Your task to perform on an android device: turn on sleep mode Image 0: 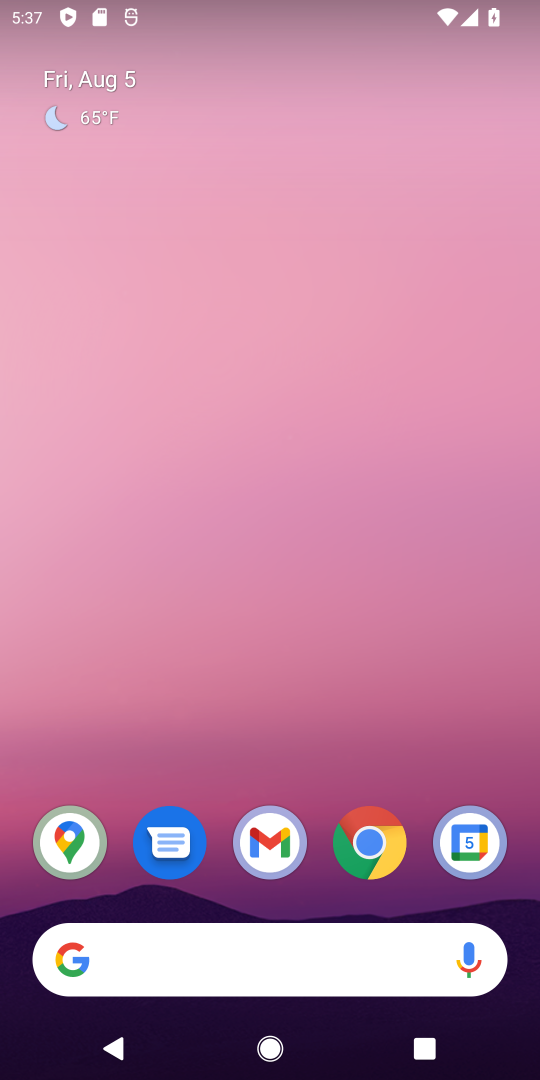
Step 0: drag from (47, 1077) to (263, 237)
Your task to perform on an android device: turn on sleep mode Image 1: 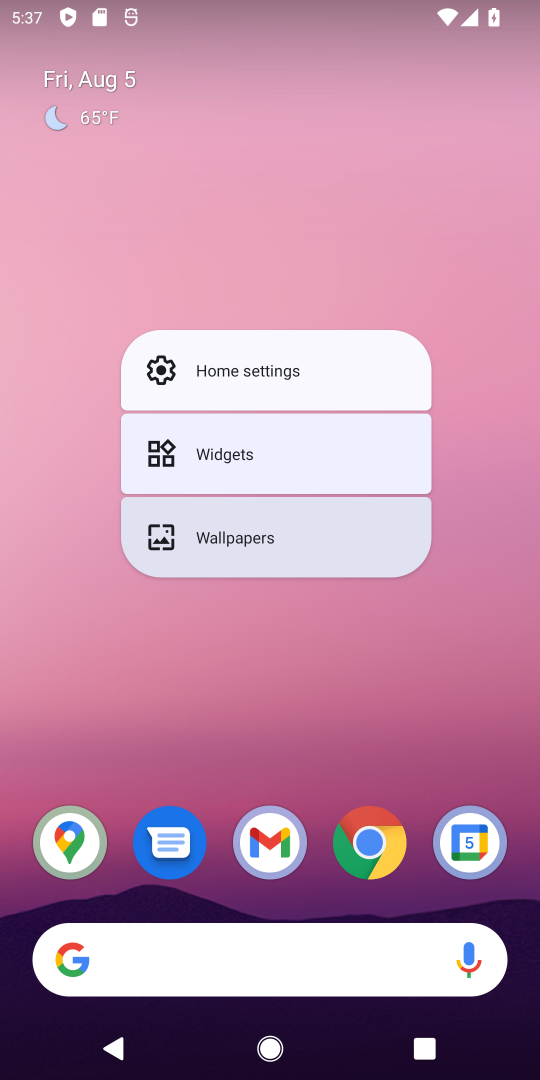
Step 1: drag from (216, 641) to (340, 216)
Your task to perform on an android device: turn on sleep mode Image 2: 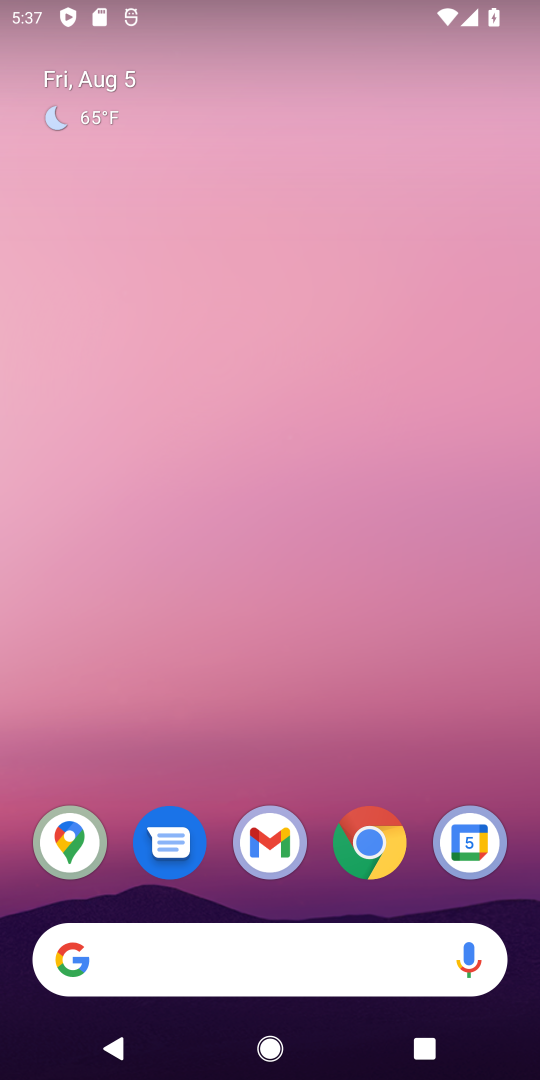
Step 2: click (360, 543)
Your task to perform on an android device: turn on sleep mode Image 3: 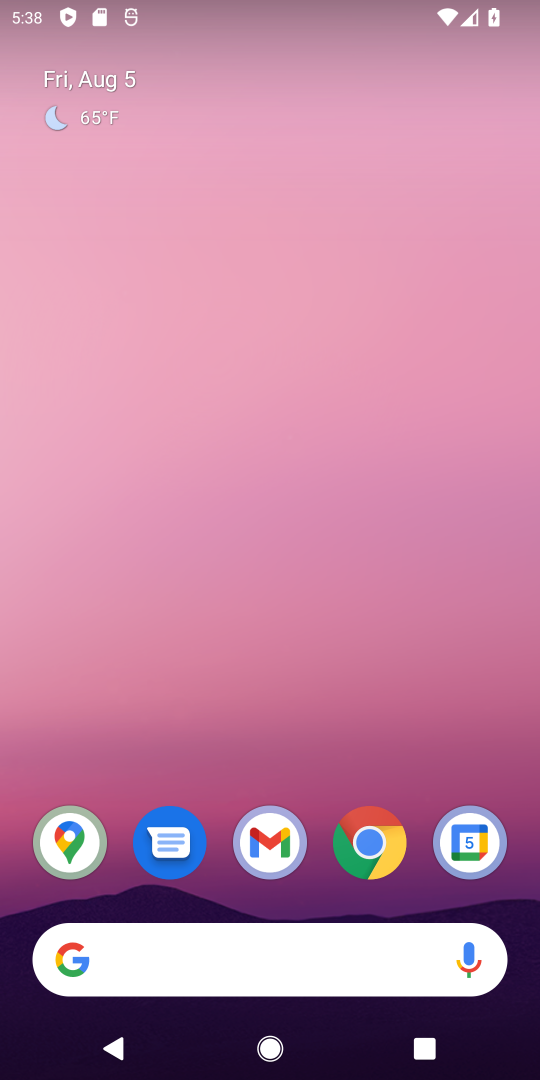
Step 3: drag from (67, 989) to (420, 98)
Your task to perform on an android device: turn on sleep mode Image 4: 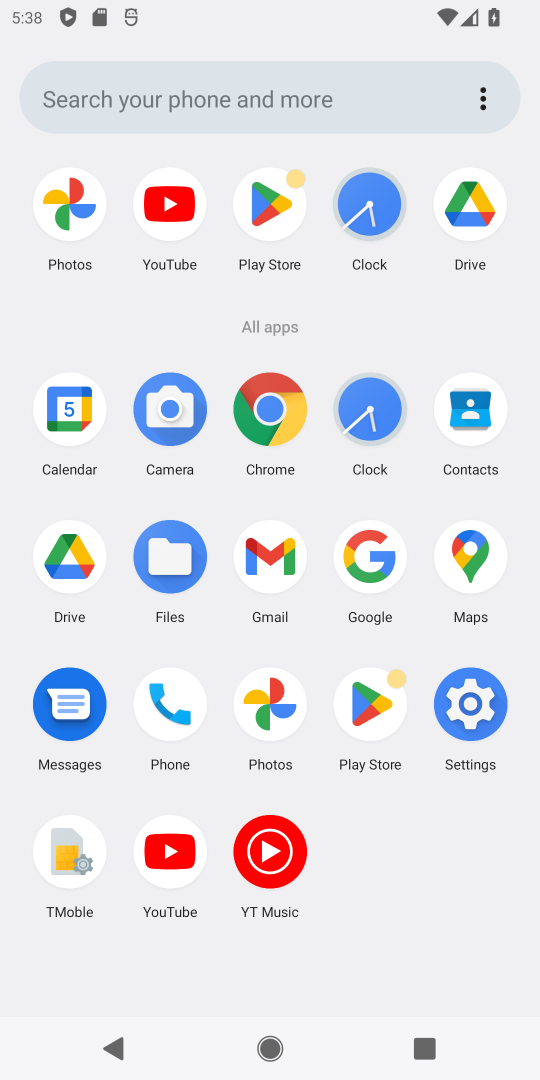
Step 4: click (486, 680)
Your task to perform on an android device: turn on sleep mode Image 5: 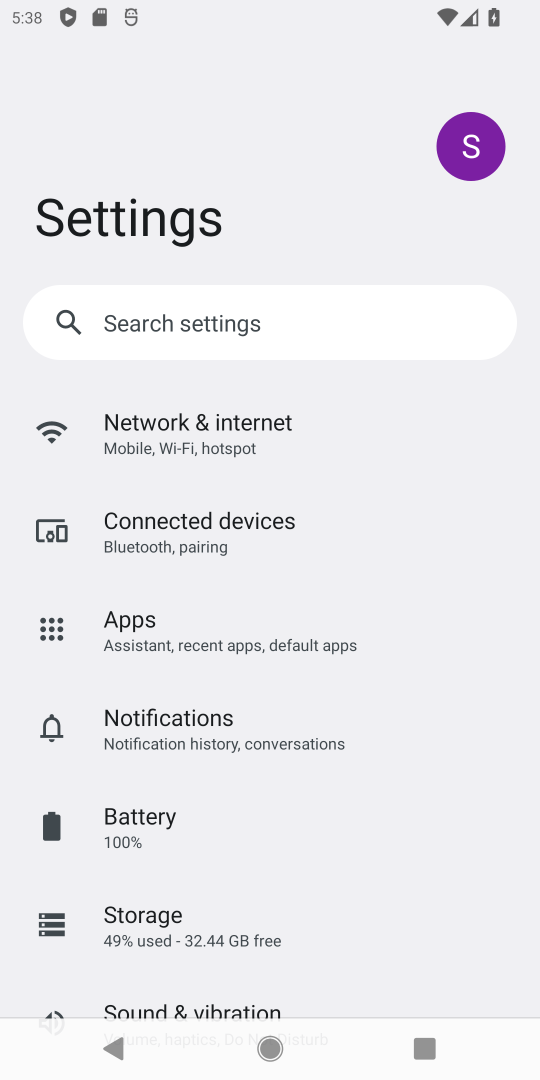
Step 5: task complete